Your task to perform on an android device: check storage Image 0: 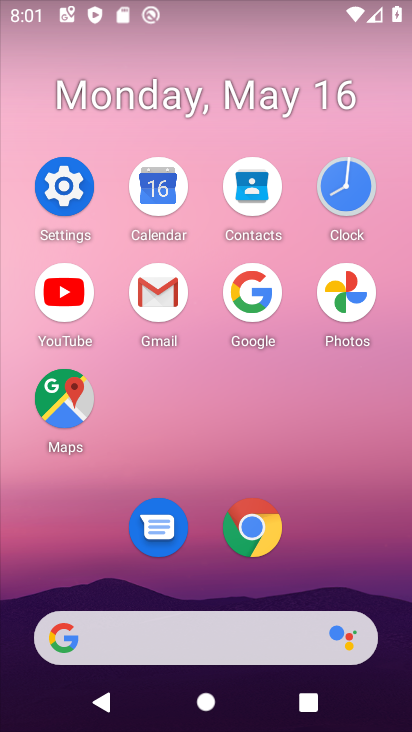
Step 0: click (67, 208)
Your task to perform on an android device: check storage Image 1: 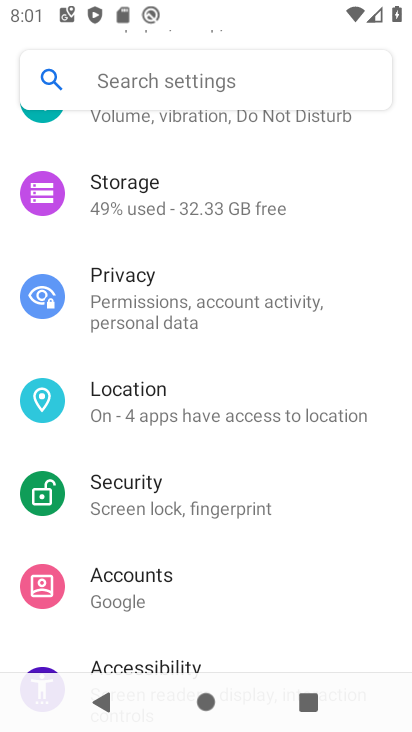
Step 1: click (201, 215)
Your task to perform on an android device: check storage Image 2: 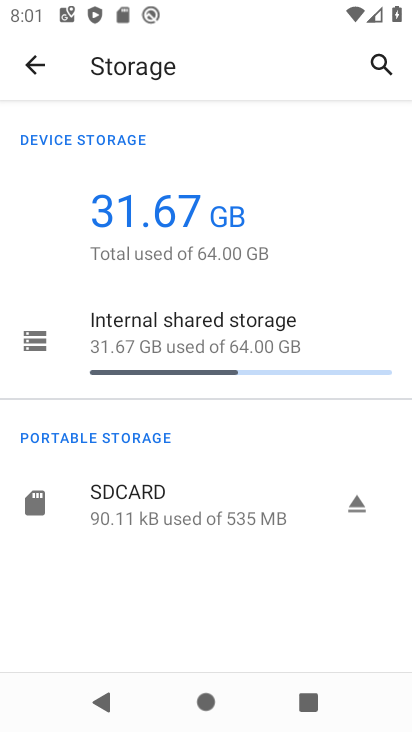
Step 2: task complete